Your task to perform on an android device: change the clock display to digital Image 0: 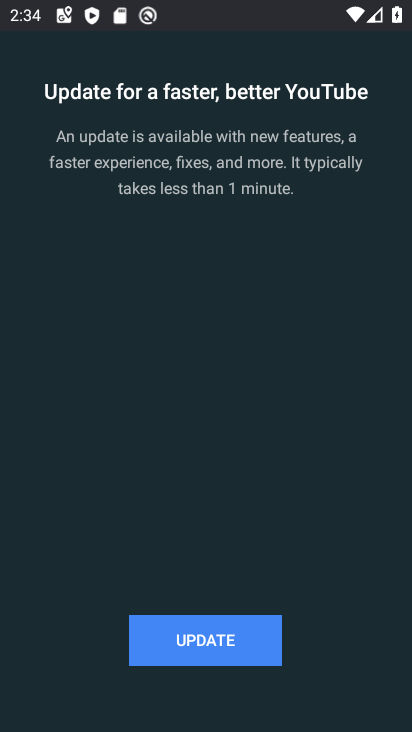
Step 0: press home button
Your task to perform on an android device: change the clock display to digital Image 1: 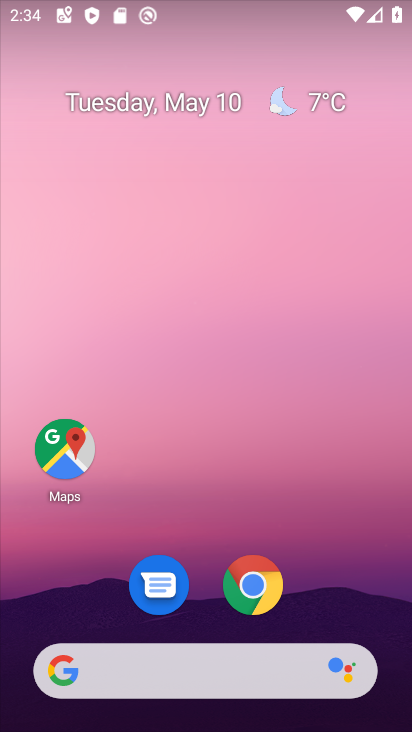
Step 1: drag from (292, 486) to (277, 80)
Your task to perform on an android device: change the clock display to digital Image 2: 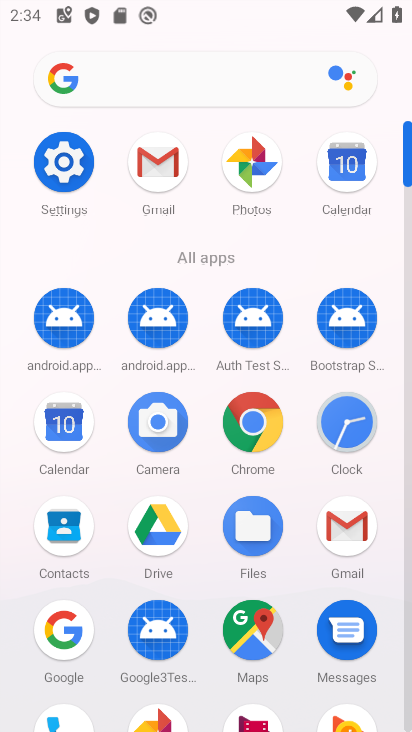
Step 2: click (343, 409)
Your task to perform on an android device: change the clock display to digital Image 3: 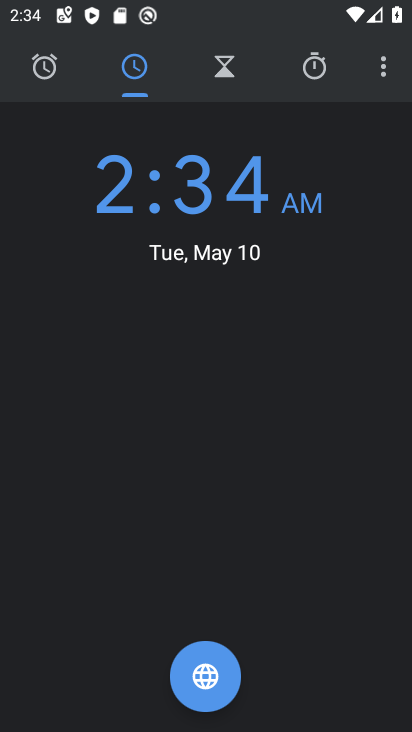
Step 3: task complete